Your task to perform on an android device: What's the news in India? Image 0: 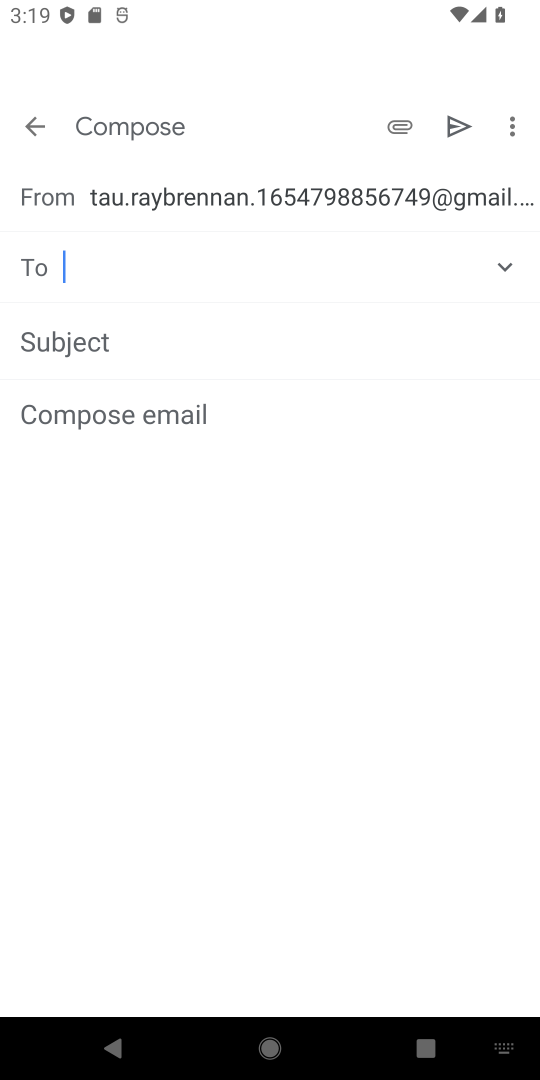
Step 0: press home button
Your task to perform on an android device: What's the news in India? Image 1: 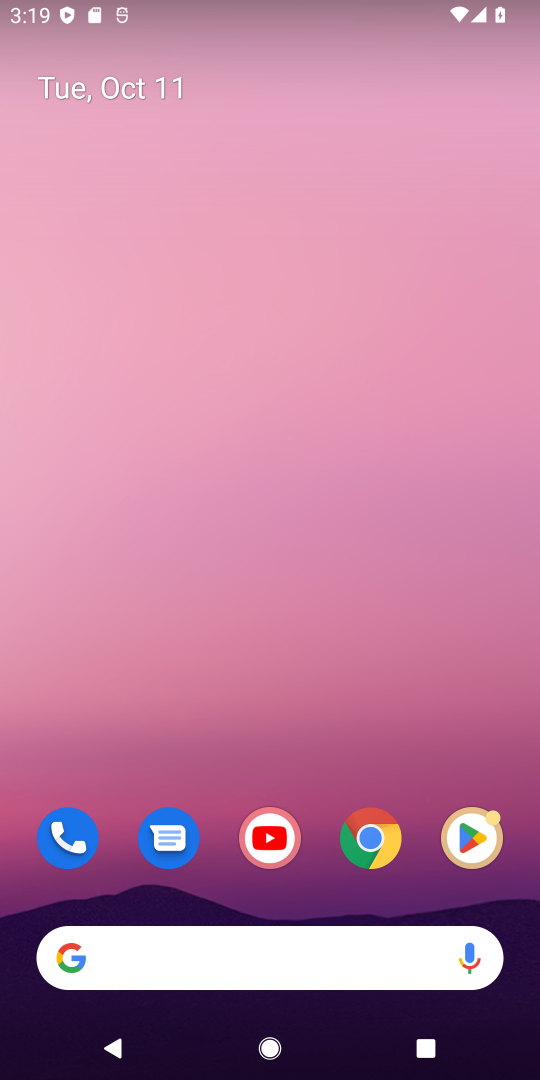
Step 1: click (183, 946)
Your task to perform on an android device: What's the news in India? Image 2: 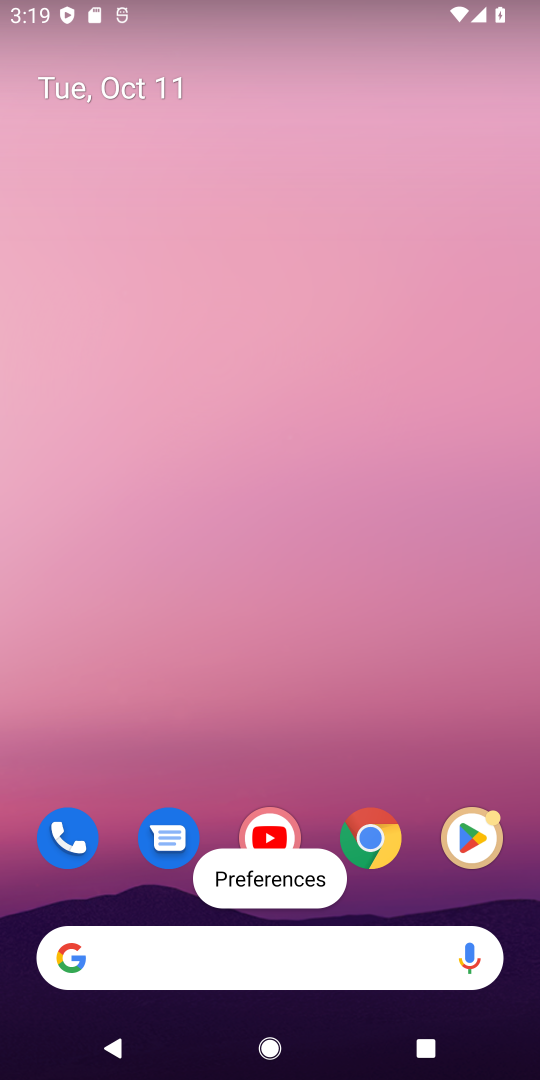
Step 2: click (227, 958)
Your task to perform on an android device: What's the news in India? Image 3: 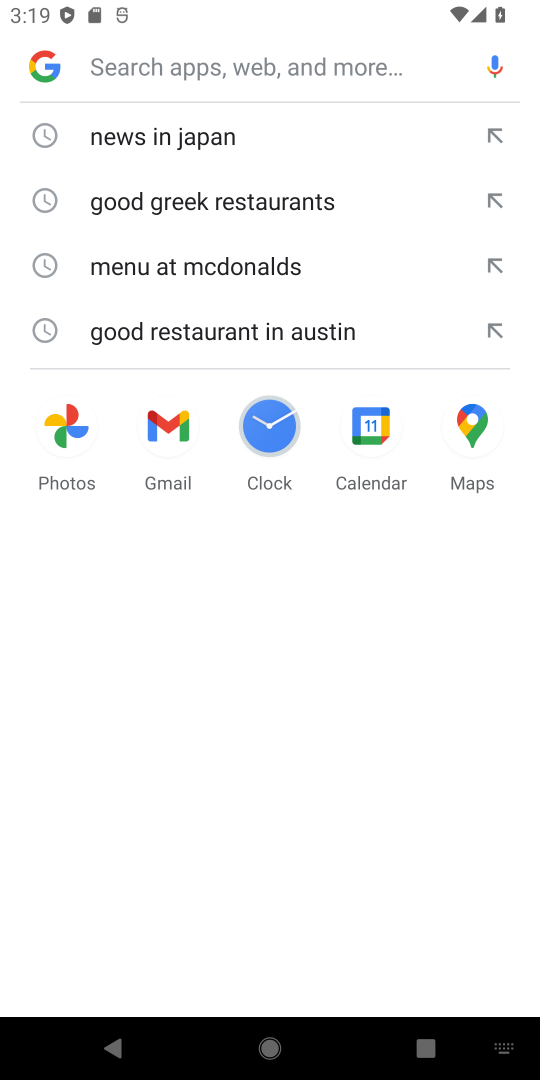
Step 3: type "news in India"
Your task to perform on an android device: What's the news in India? Image 4: 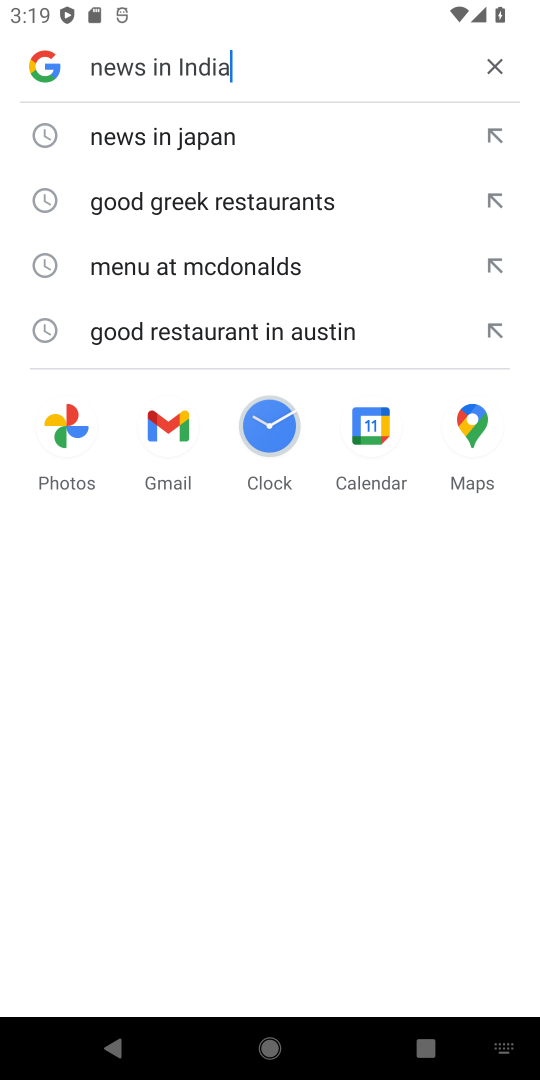
Step 4: type ""
Your task to perform on an android device: What's the news in India? Image 5: 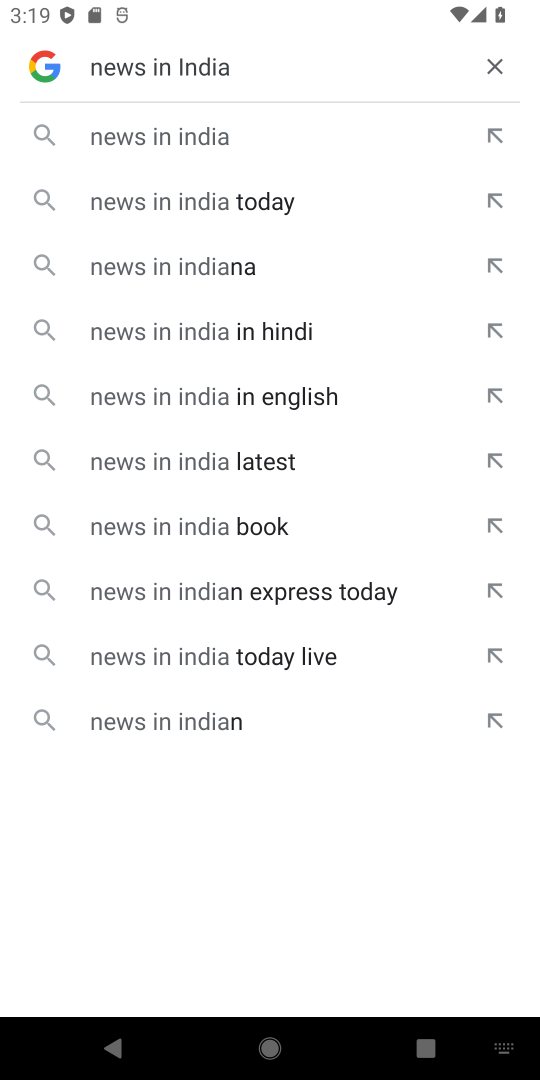
Step 5: click (180, 136)
Your task to perform on an android device: What's the news in India? Image 6: 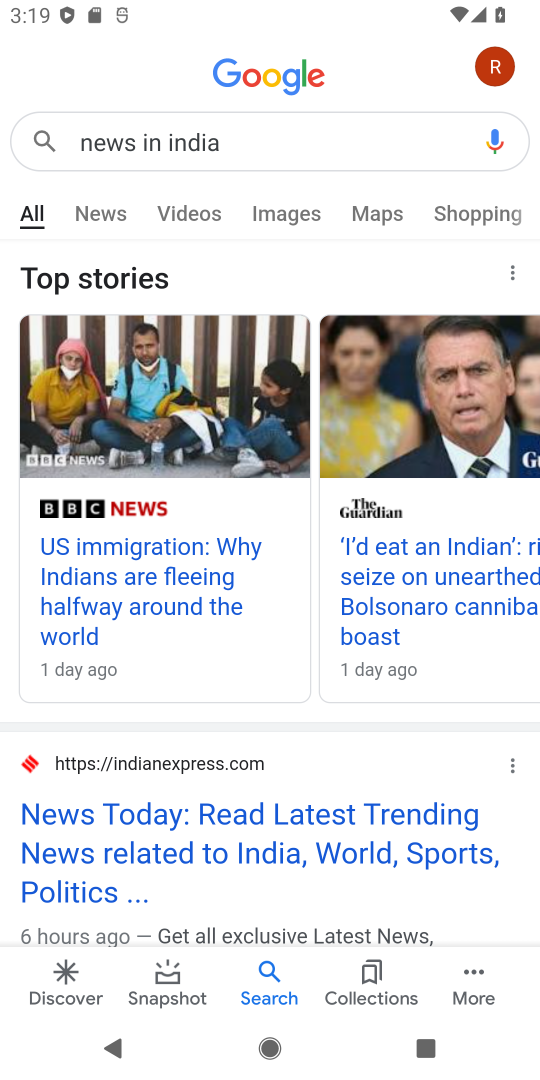
Step 6: click (97, 207)
Your task to perform on an android device: What's the news in India? Image 7: 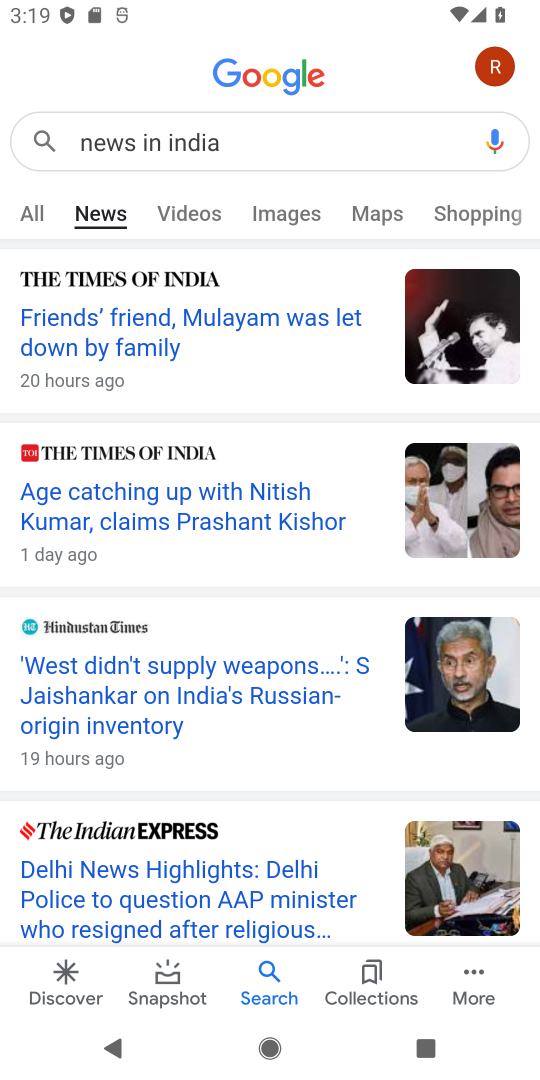
Step 7: task complete